Your task to perform on an android device: turn on translation in the chrome app Image 0: 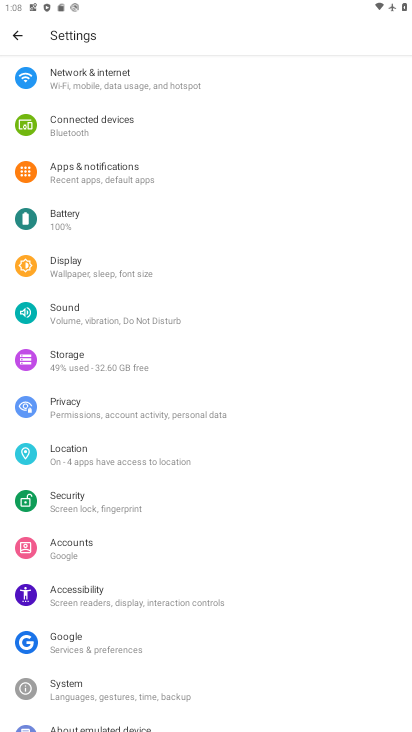
Step 0: press home button
Your task to perform on an android device: turn on translation in the chrome app Image 1: 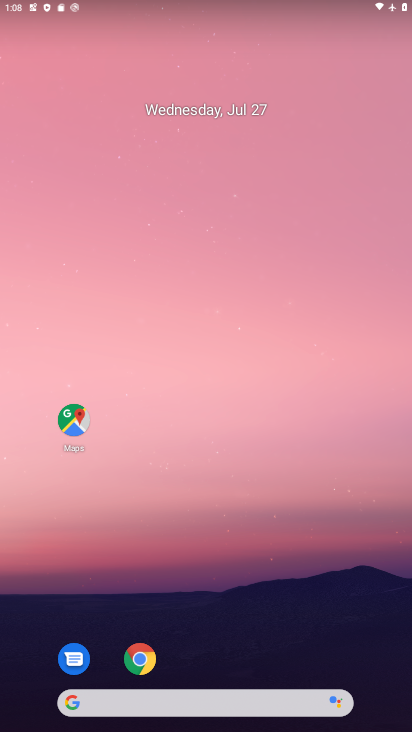
Step 1: drag from (263, 607) to (276, 99)
Your task to perform on an android device: turn on translation in the chrome app Image 2: 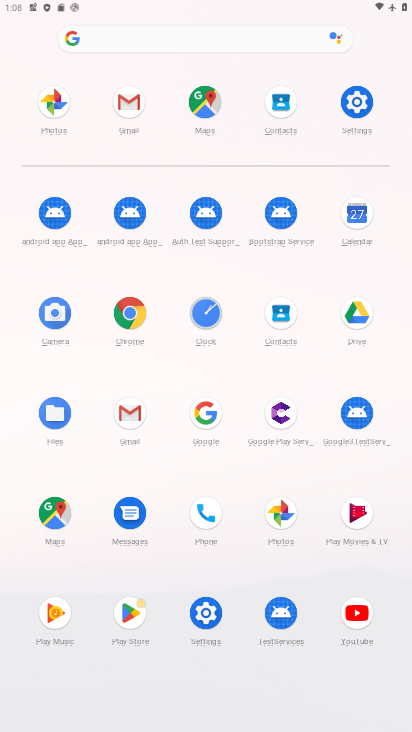
Step 2: click (137, 328)
Your task to perform on an android device: turn on translation in the chrome app Image 3: 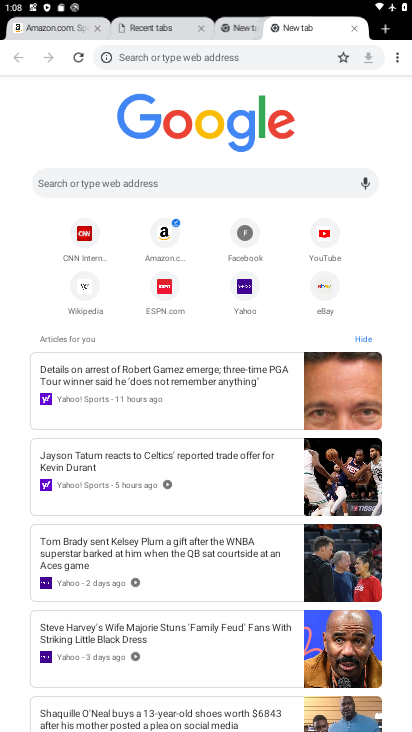
Step 3: click (399, 61)
Your task to perform on an android device: turn on translation in the chrome app Image 4: 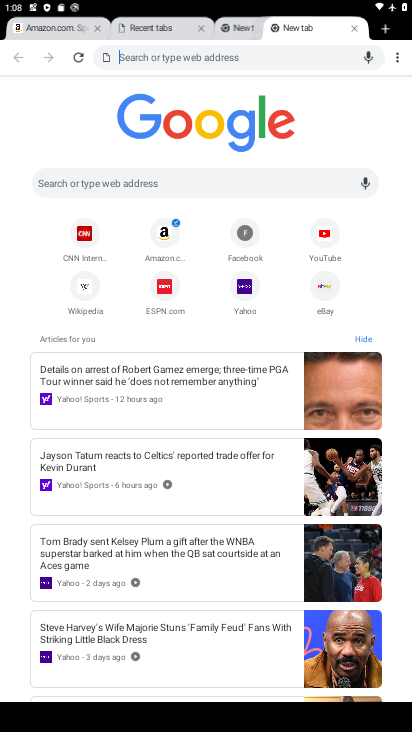
Step 4: click (397, 60)
Your task to perform on an android device: turn on translation in the chrome app Image 5: 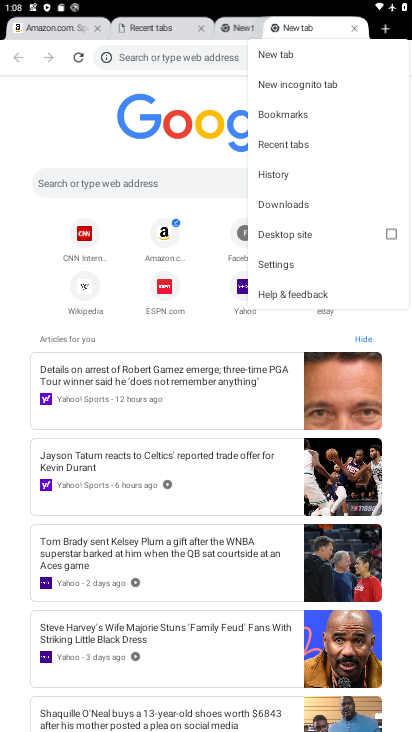
Step 5: click (304, 268)
Your task to perform on an android device: turn on translation in the chrome app Image 6: 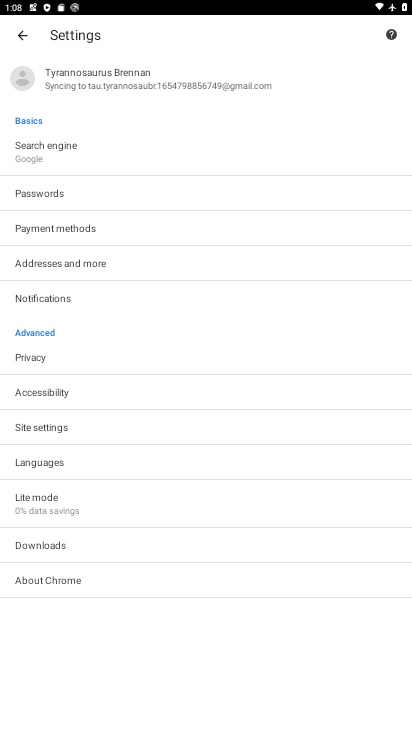
Step 6: click (93, 467)
Your task to perform on an android device: turn on translation in the chrome app Image 7: 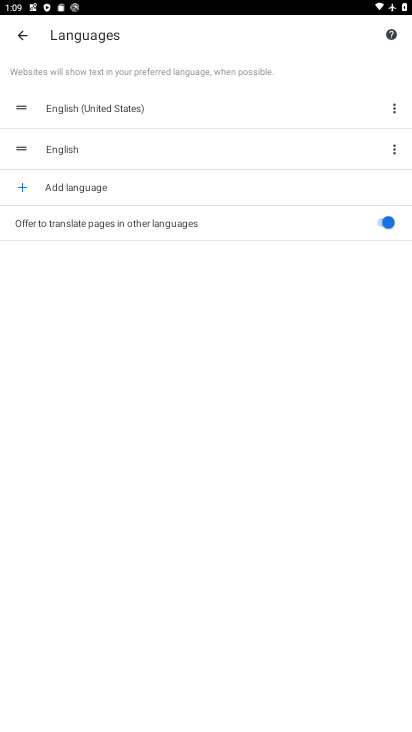
Step 7: task complete